Your task to perform on an android device: add a label to a message in the gmail app Image 0: 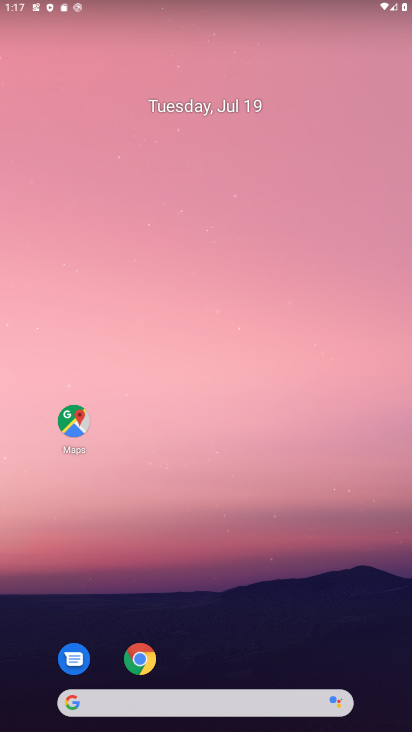
Step 0: press home button
Your task to perform on an android device: add a label to a message in the gmail app Image 1: 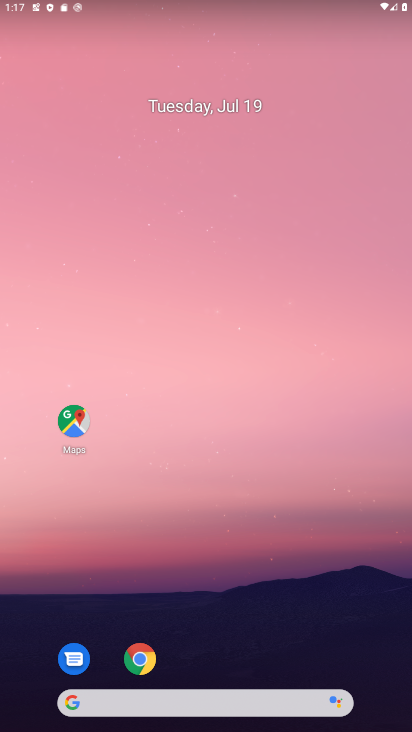
Step 1: drag from (299, 666) to (180, 96)
Your task to perform on an android device: add a label to a message in the gmail app Image 2: 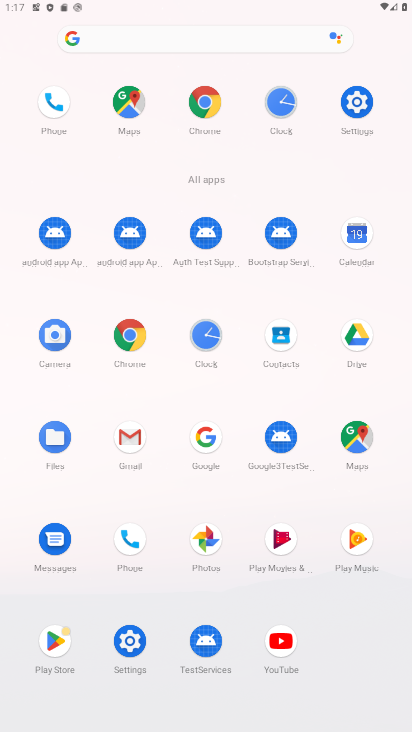
Step 2: click (112, 445)
Your task to perform on an android device: add a label to a message in the gmail app Image 3: 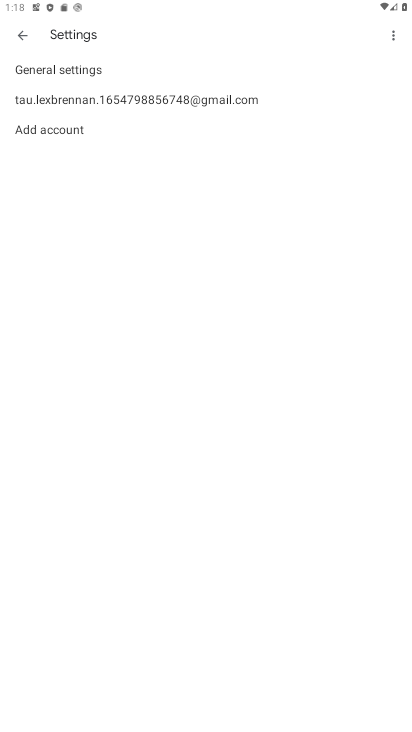
Step 3: click (17, 45)
Your task to perform on an android device: add a label to a message in the gmail app Image 4: 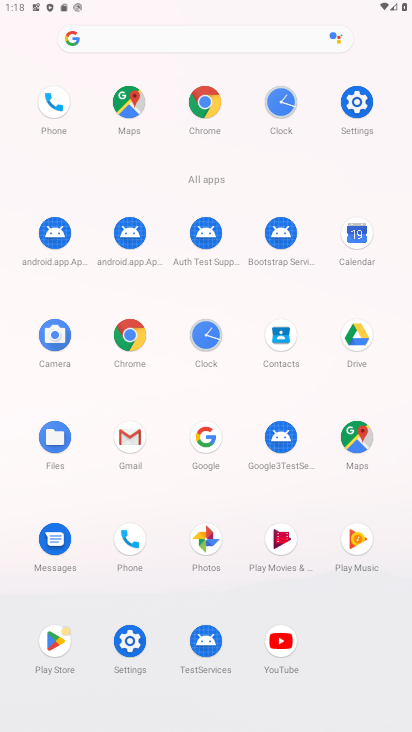
Step 4: click (125, 457)
Your task to perform on an android device: add a label to a message in the gmail app Image 5: 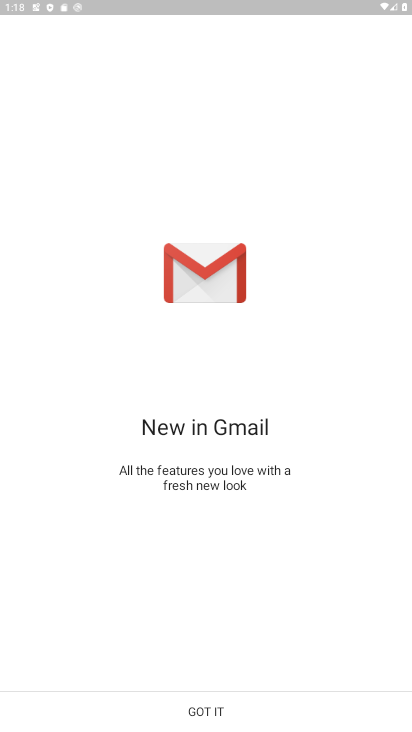
Step 5: click (263, 718)
Your task to perform on an android device: add a label to a message in the gmail app Image 6: 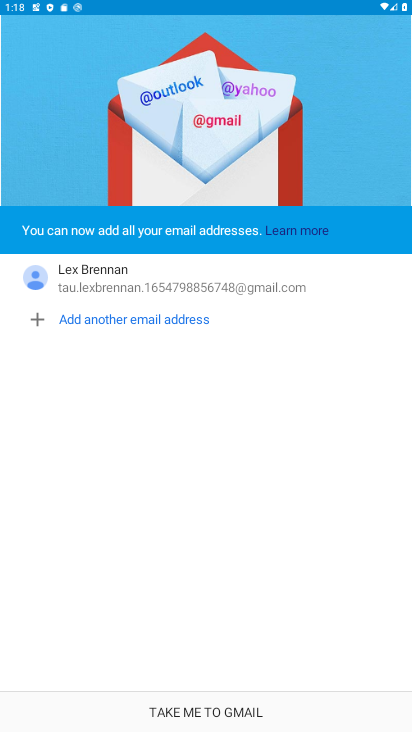
Step 6: click (263, 718)
Your task to perform on an android device: add a label to a message in the gmail app Image 7: 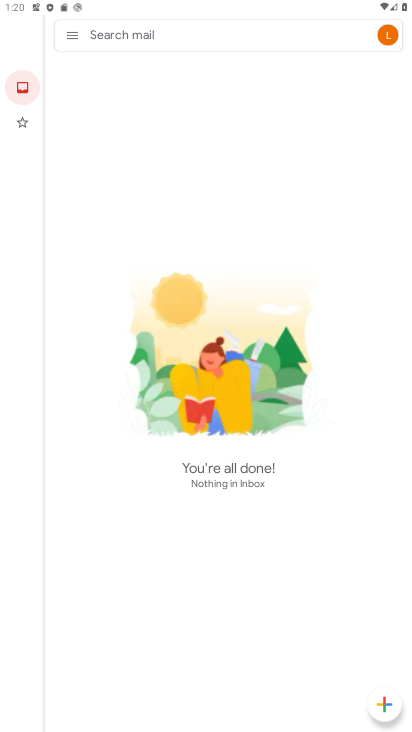
Step 7: task complete